Your task to perform on an android device: Set an alarm for 4pm Image 0: 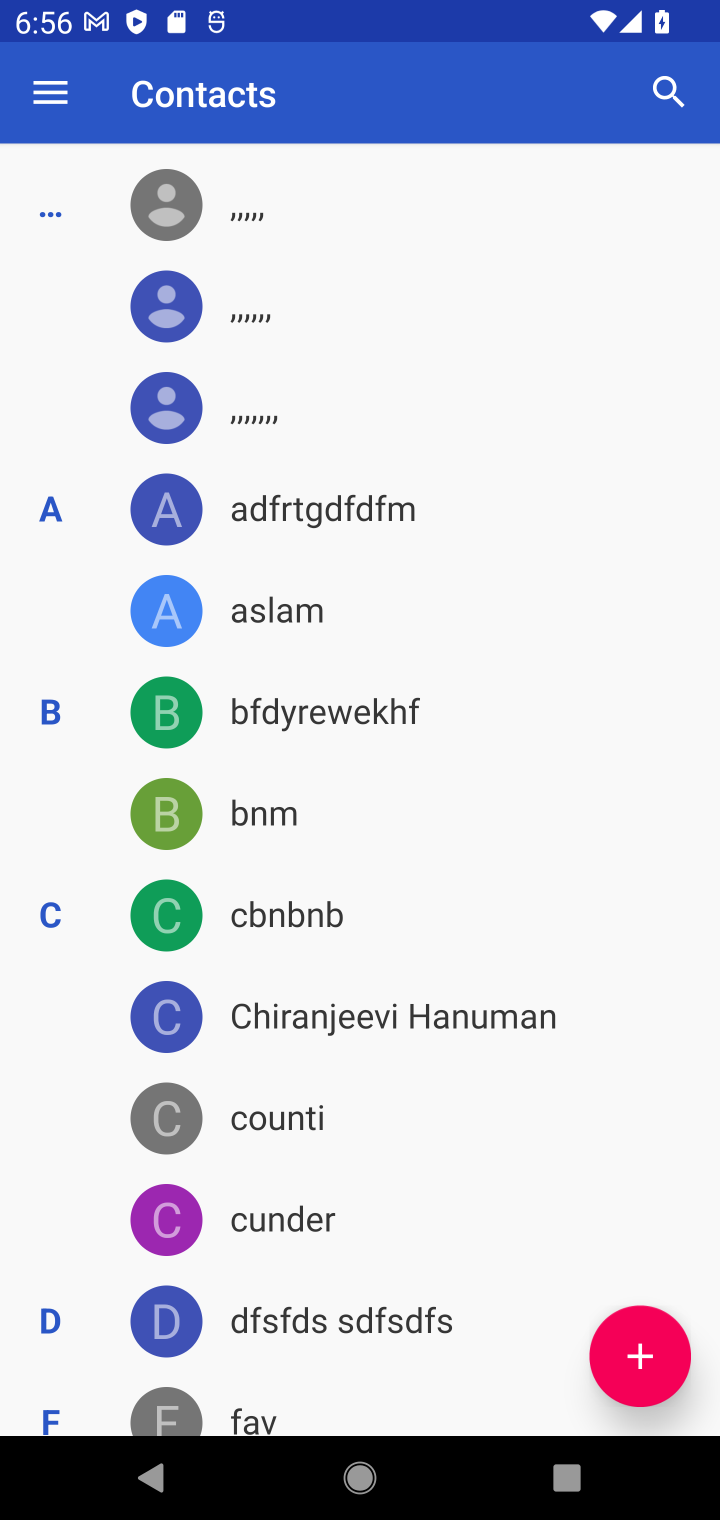
Step 0: press home button
Your task to perform on an android device: Set an alarm for 4pm Image 1: 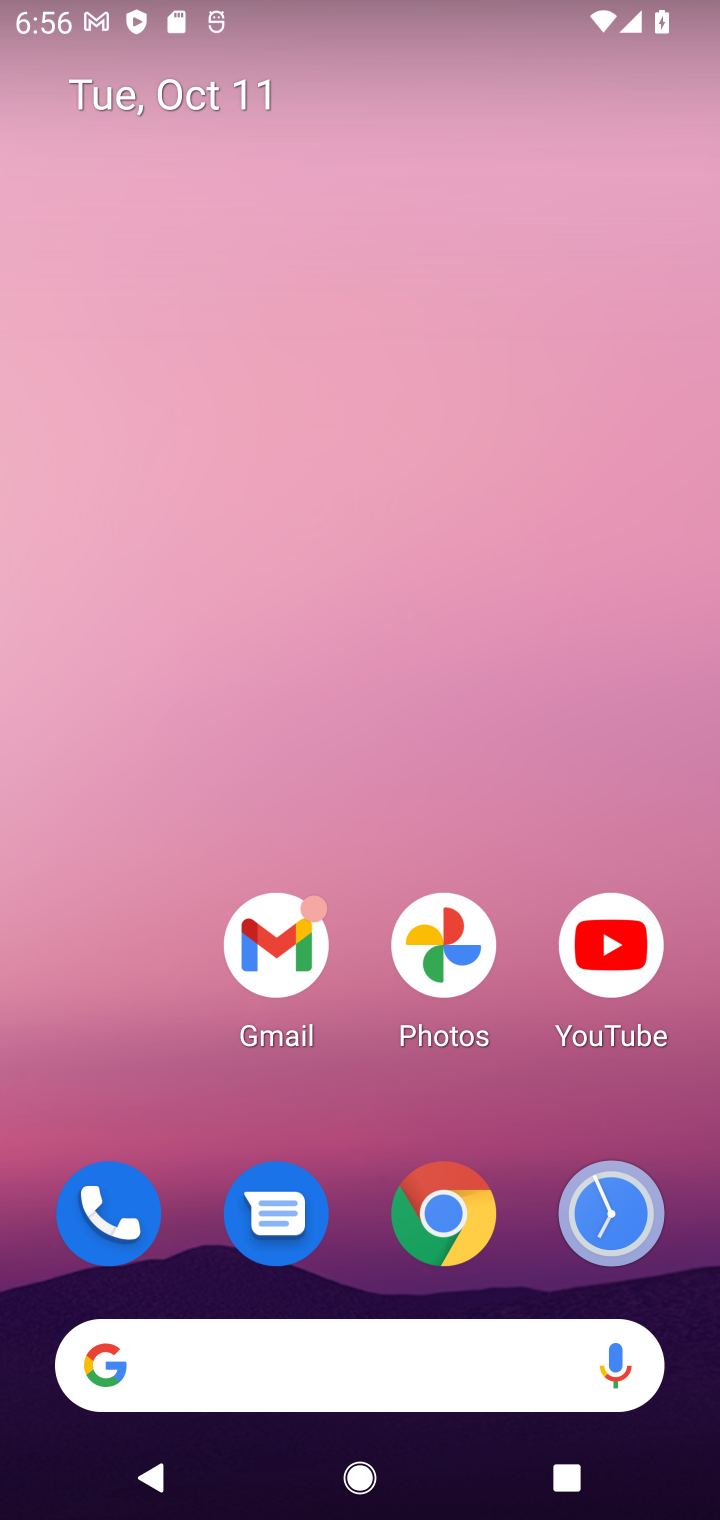
Step 1: drag from (313, 1312) to (264, 487)
Your task to perform on an android device: Set an alarm for 4pm Image 2: 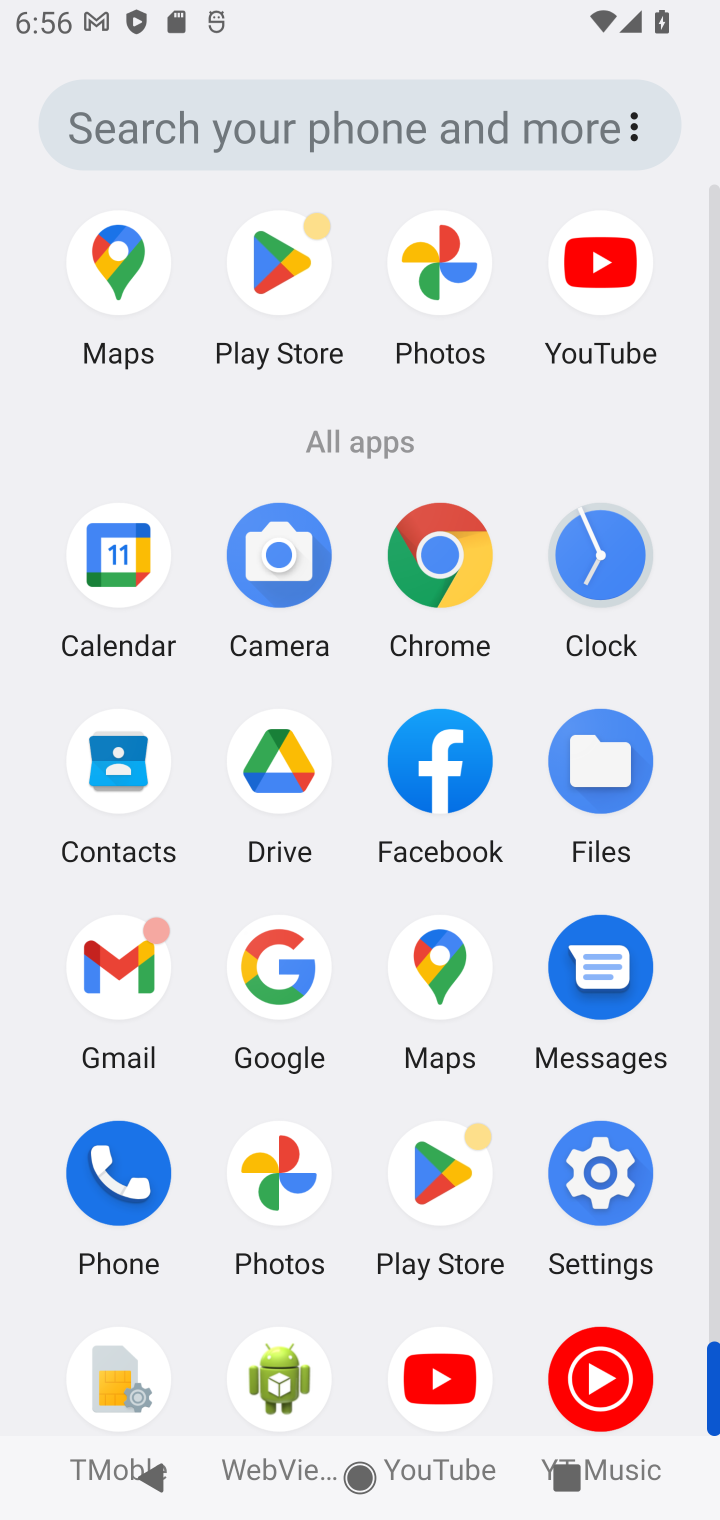
Step 2: drag from (158, 1275) to (170, 534)
Your task to perform on an android device: Set an alarm for 4pm Image 3: 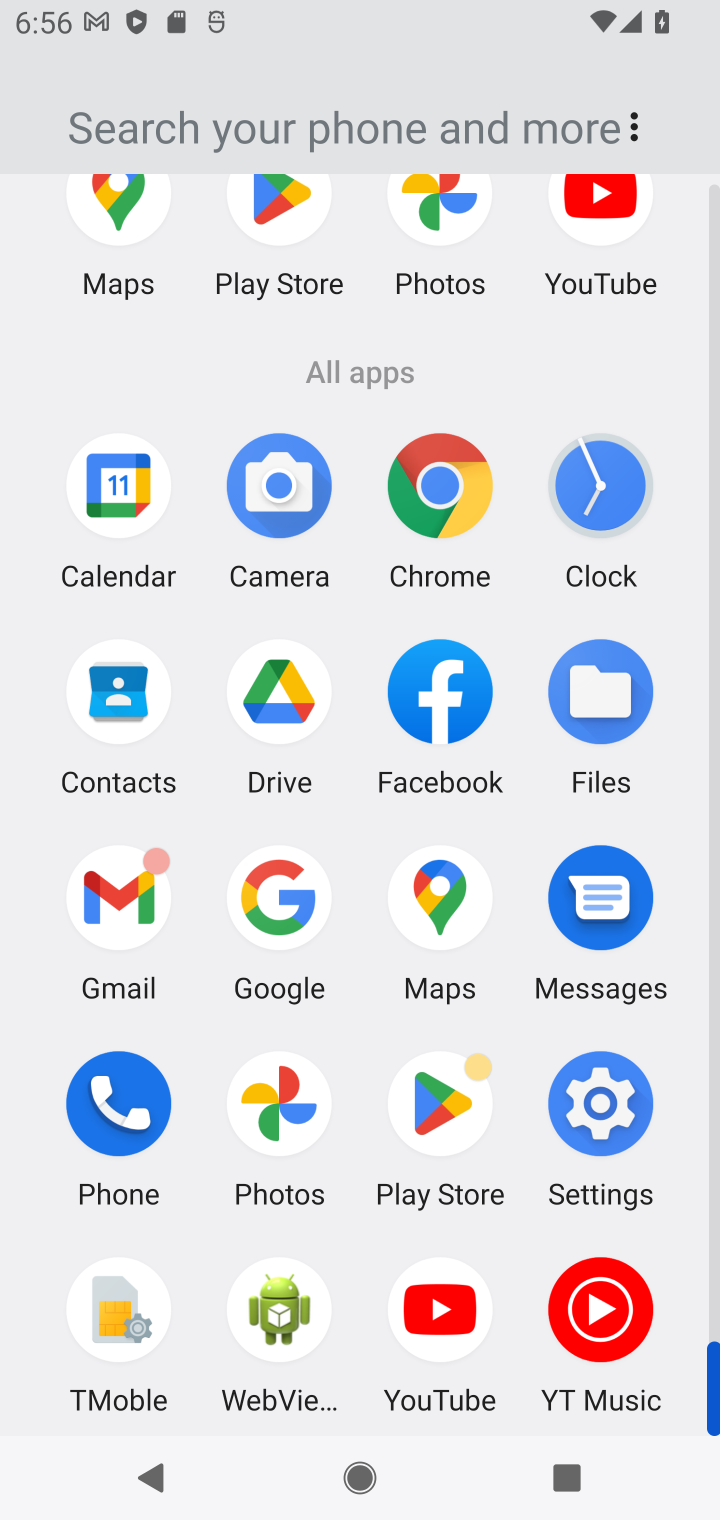
Step 3: drag from (281, 1228) to (264, 439)
Your task to perform on an android device: Set an alarm for 4pm Image 4: 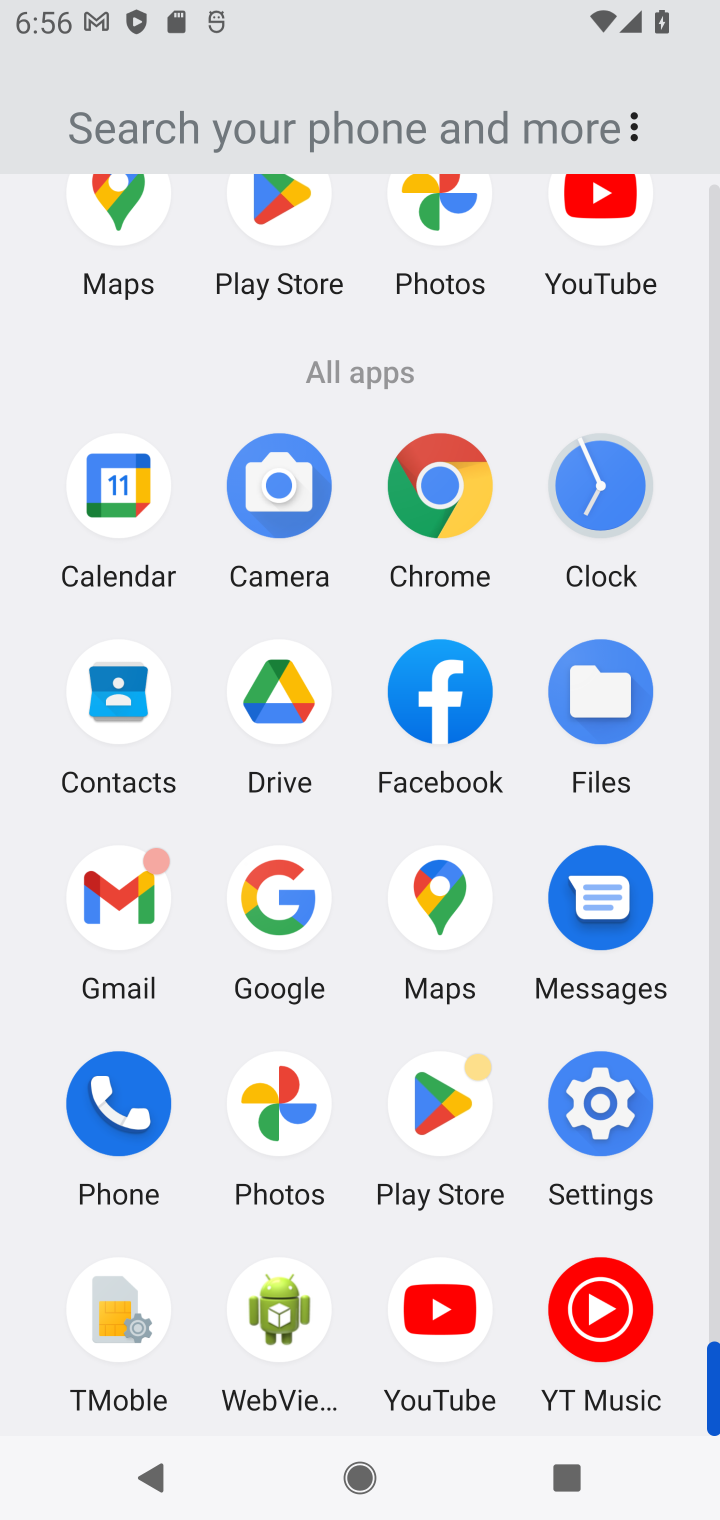
Step 4: click (598, 484)
Your task to perform on an android device: Set an alarm for 4pm Image 5: 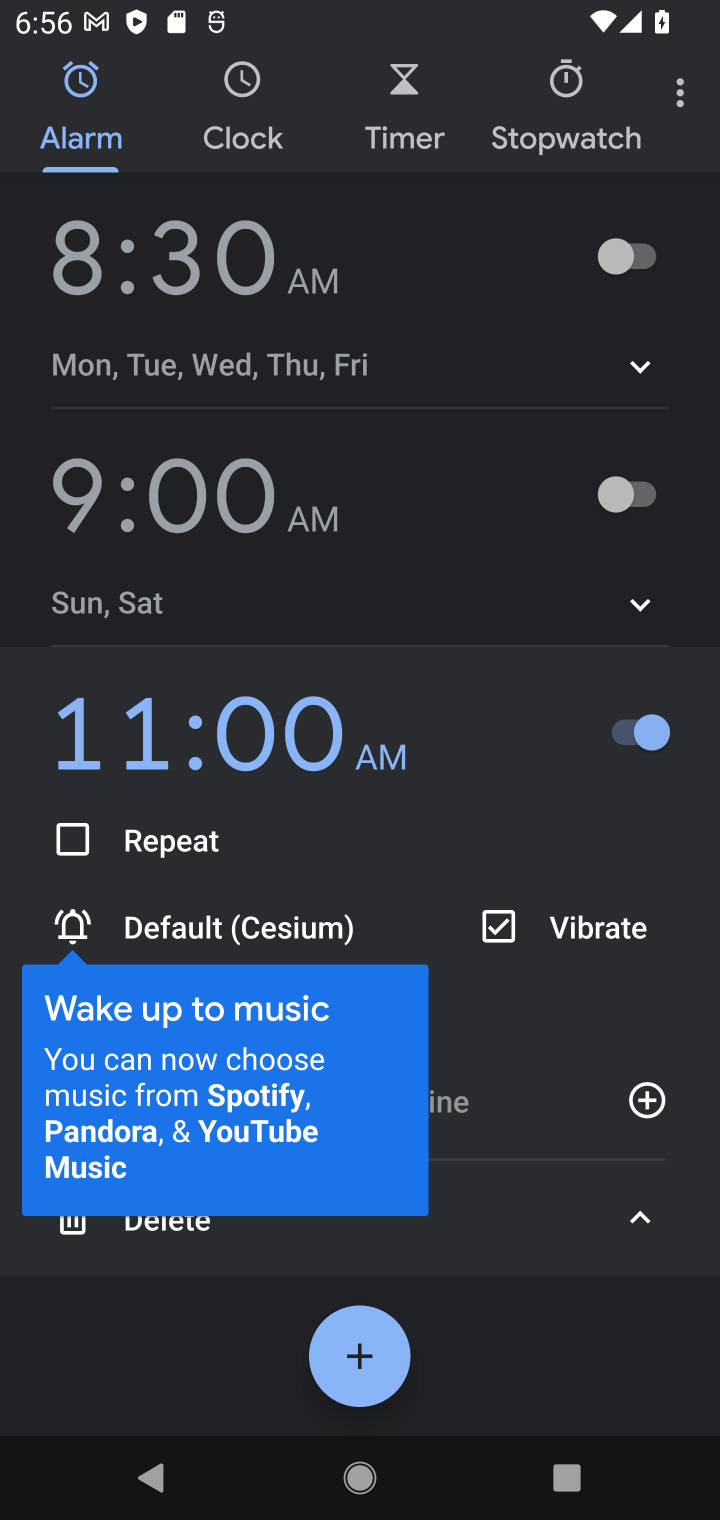
Step 5: click (335, 1345)
Your task to perform on an android device: Set an alarm for 4pm Image 6: 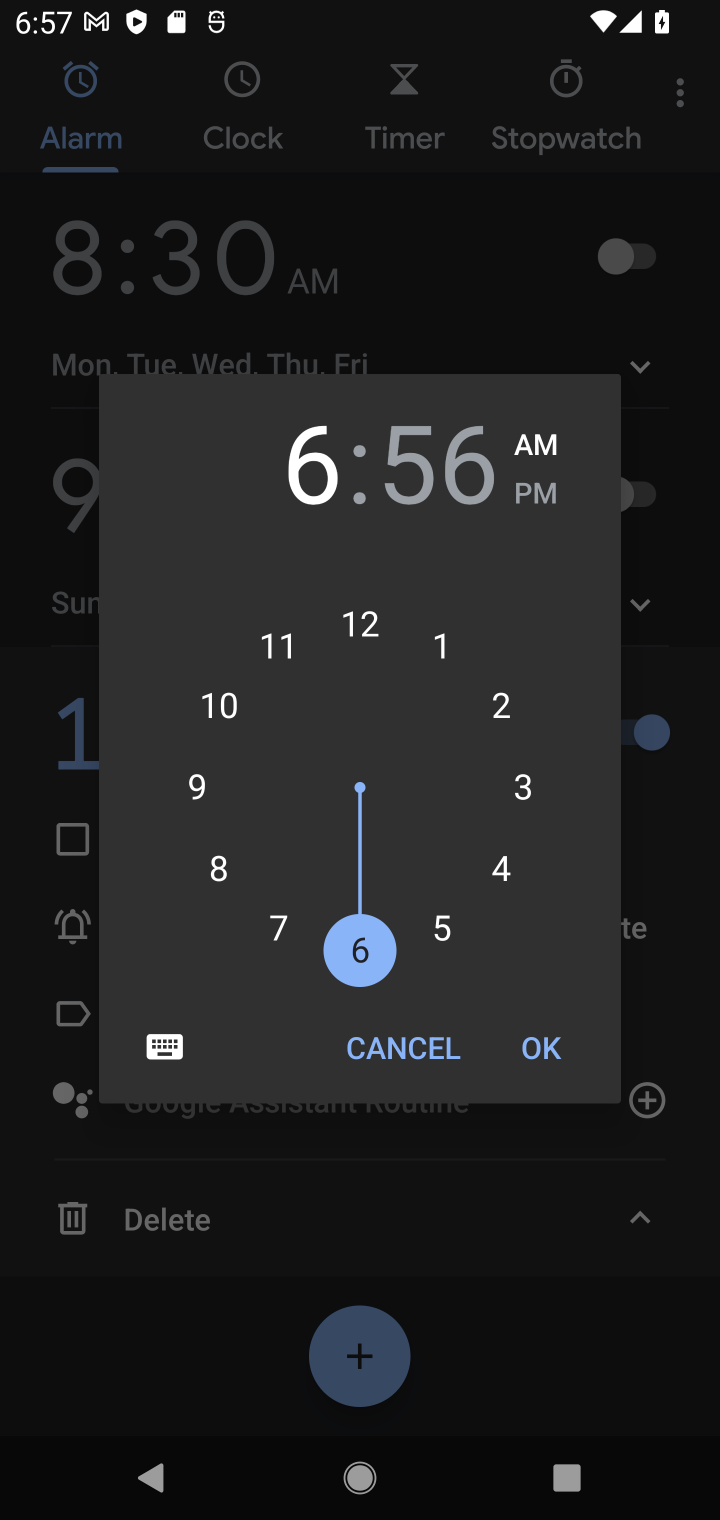
Step 6: click (516, 874)
Your task to perform on an android device: Set an alarm for 4pm Image 7: 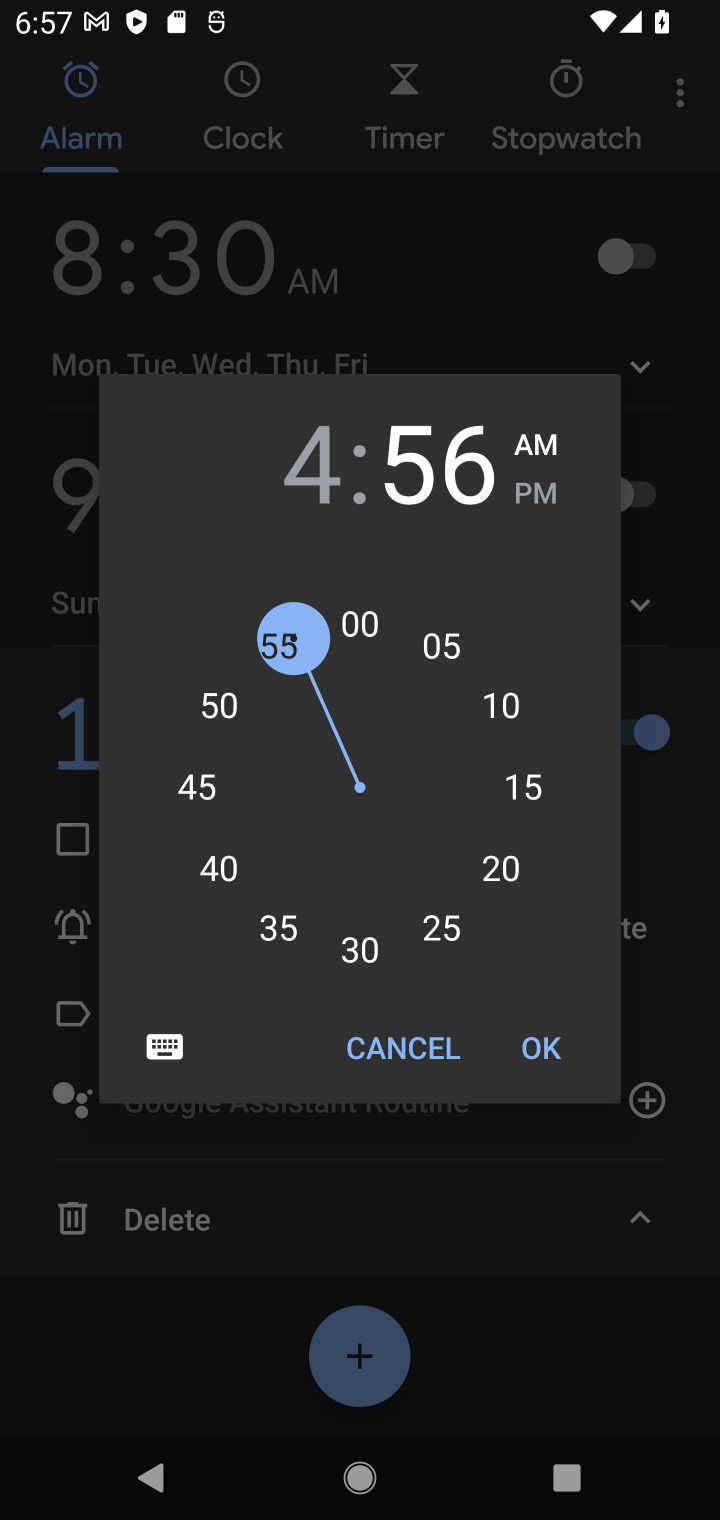
Step 7: click (519, 502)
Your task to perform on an android device: Set an alarm for 4pm Image 8: 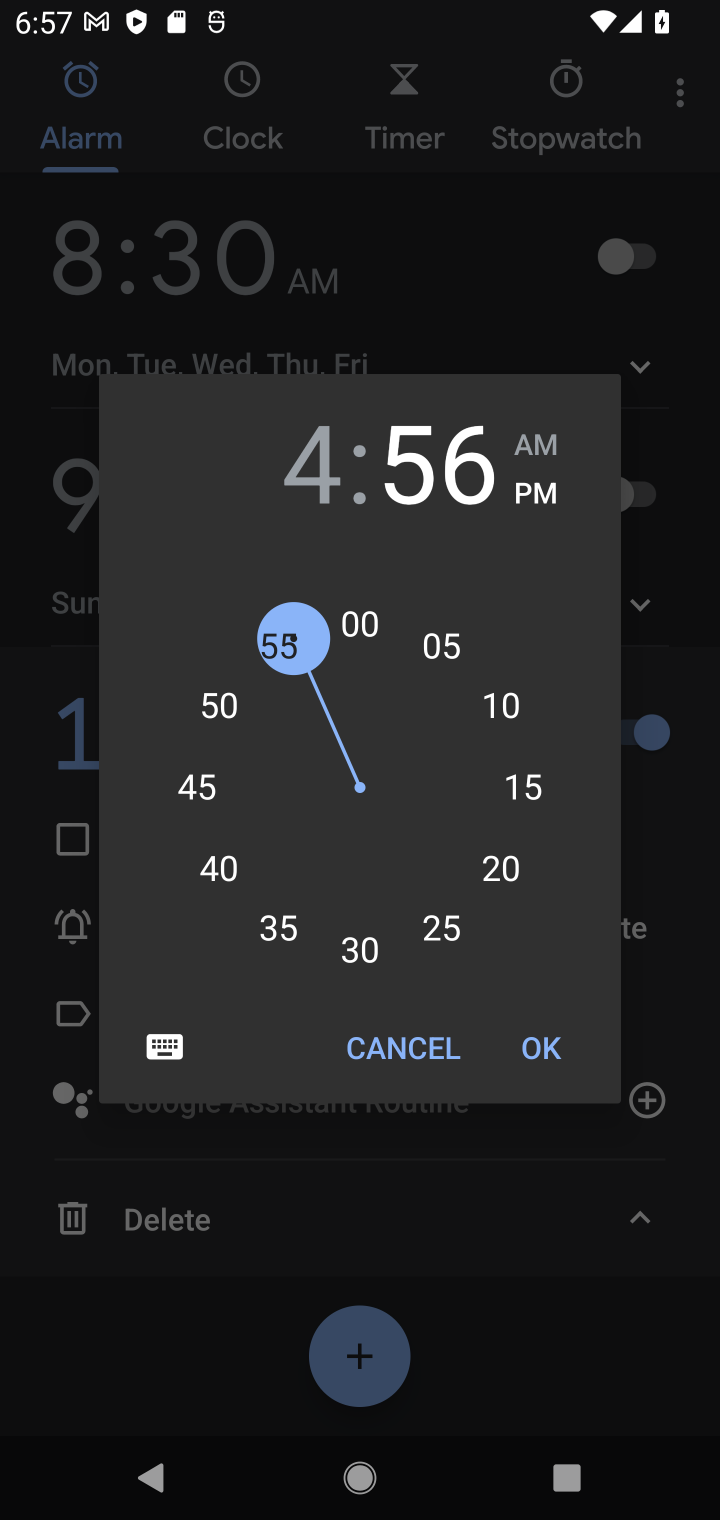
Step 8: click (549, 1061)
Your task to perform on an android device: Set an alarm for 4pm Image 9: 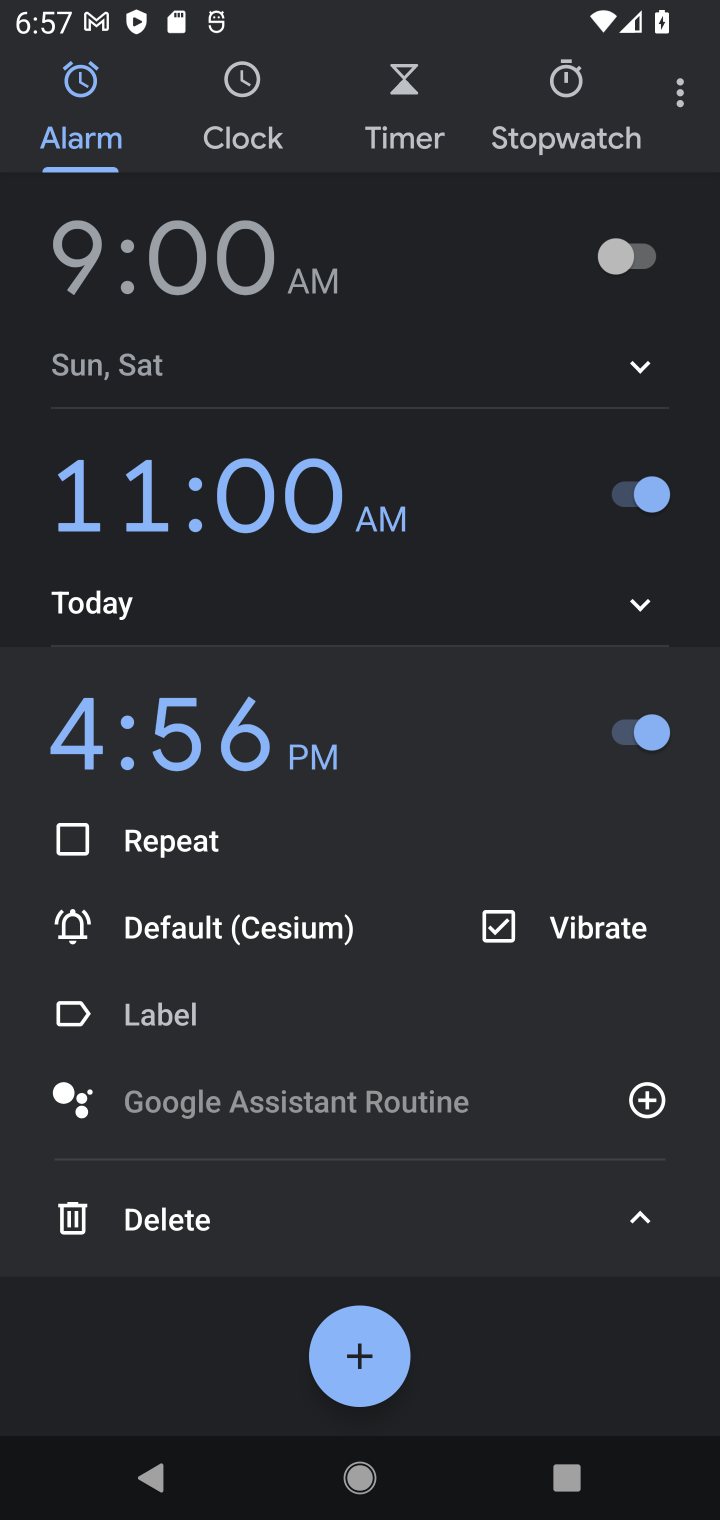
Step 9: click (271, 491)
Your task to perform on an android device: Set an alarm for 4pm Image 10: 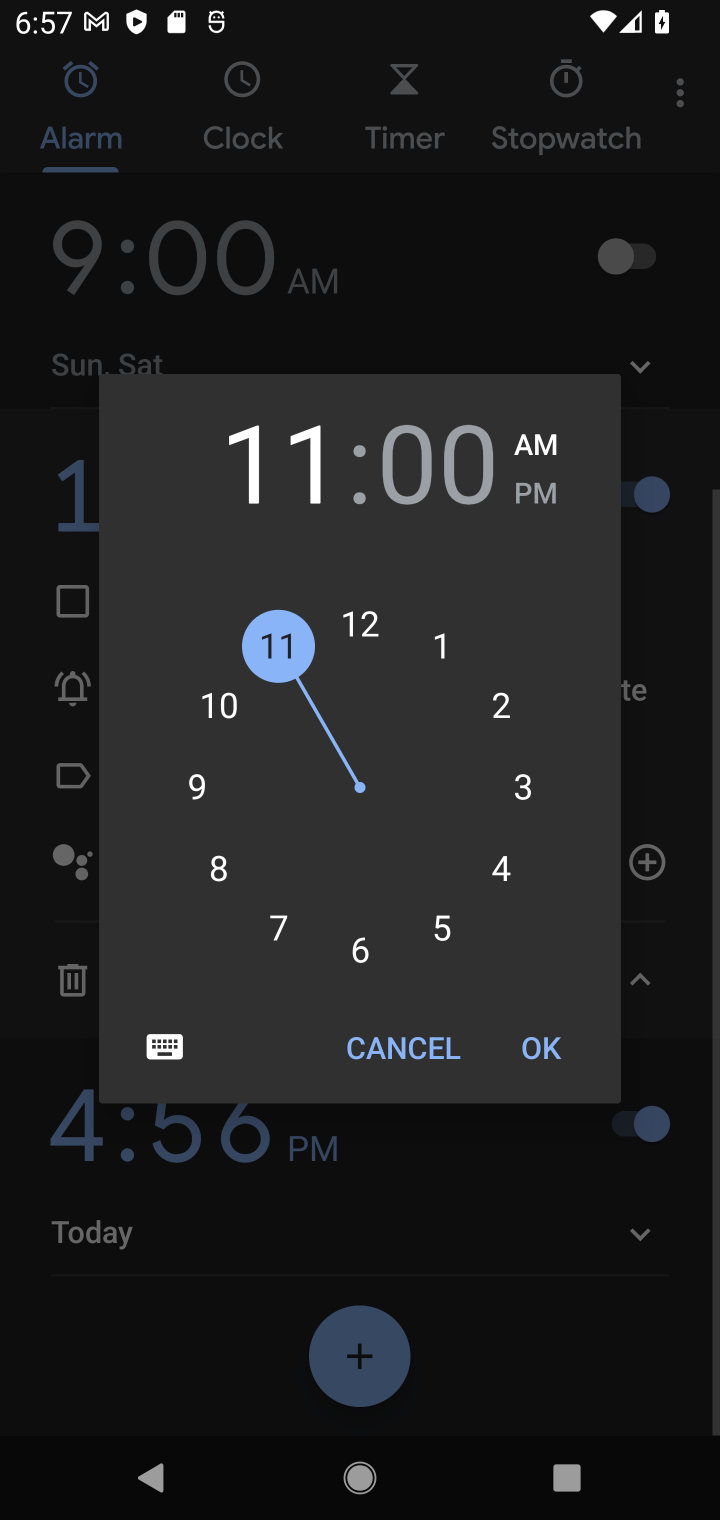
Step 10: click (561, 1042)
Your task to perform on an android device: Set an alarm for 4pm Image 11: 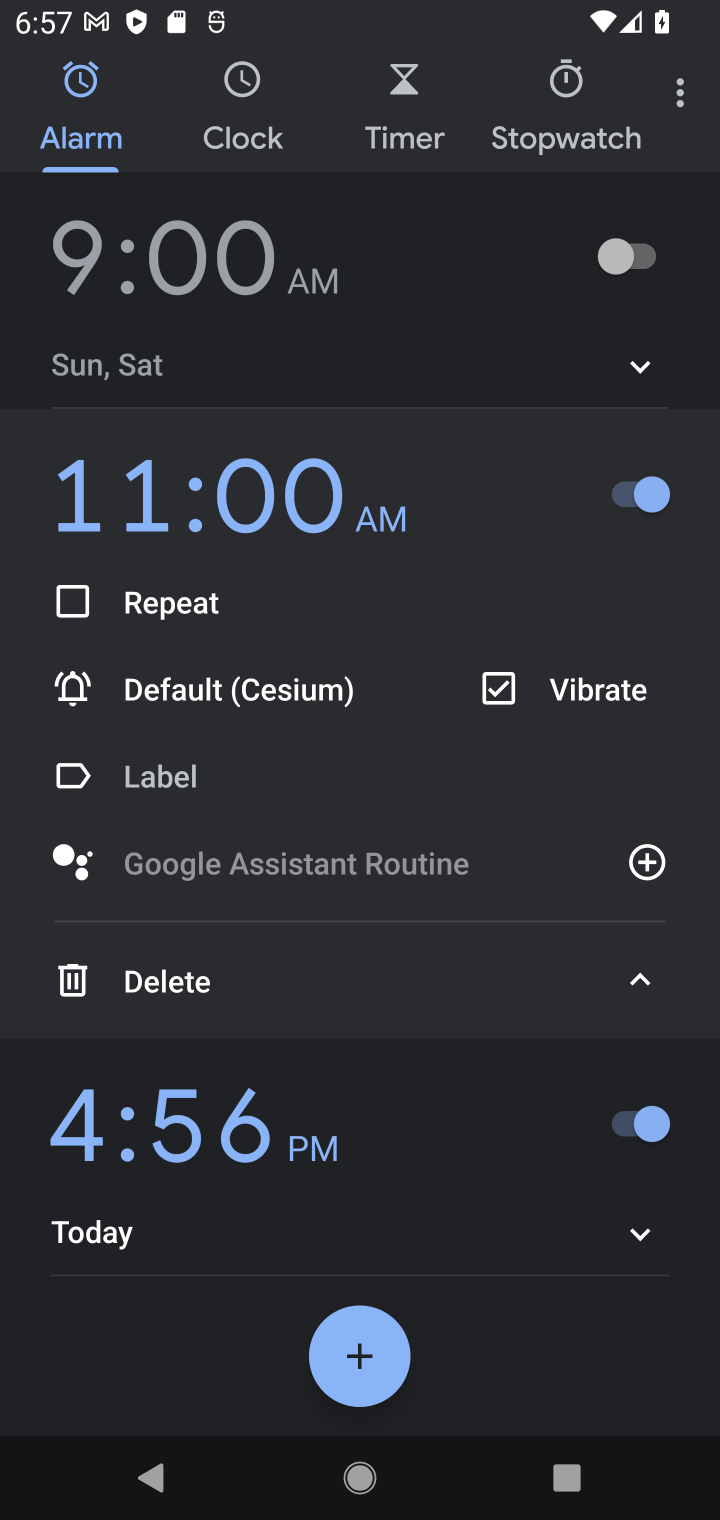
Step 11: click (647, 969)
Your task to perform on an android device: Set an alarm for 4pm Image 12: 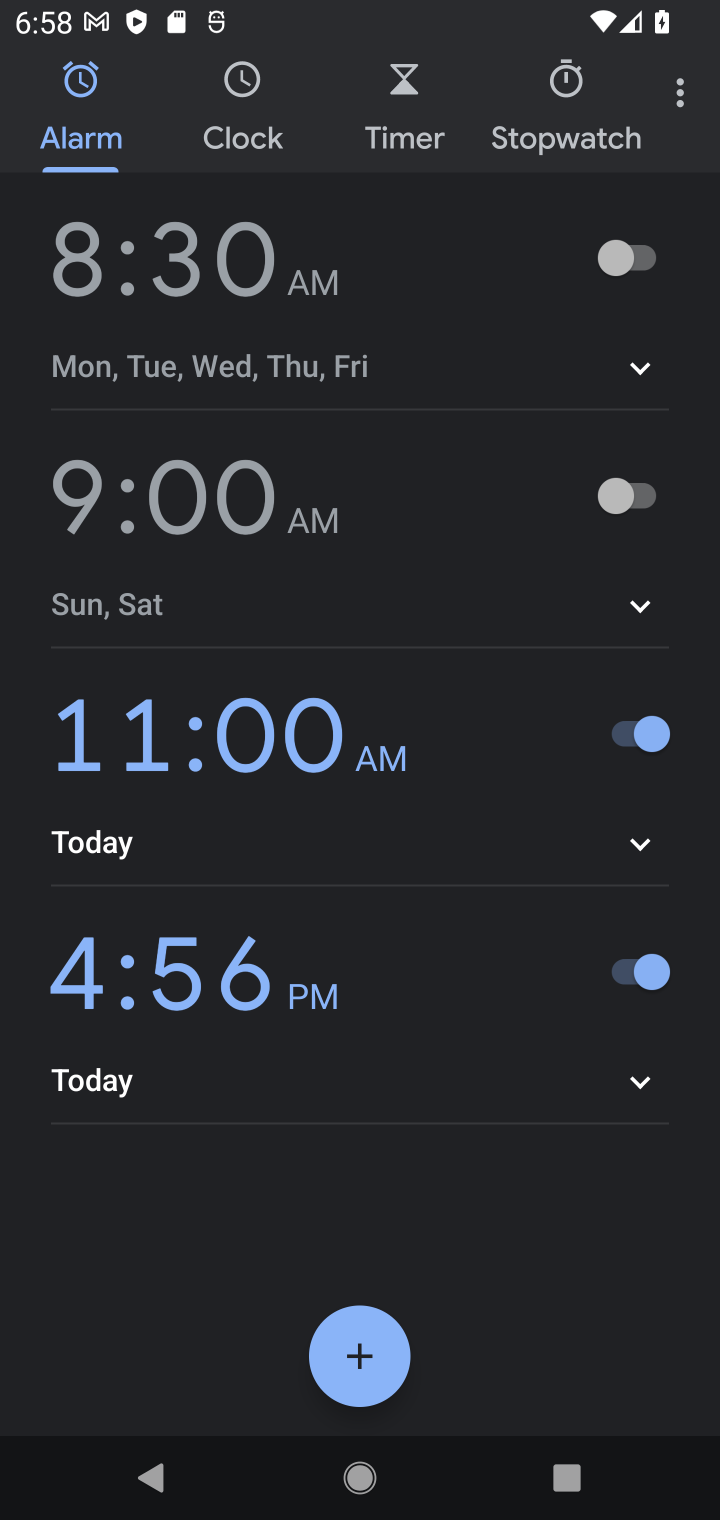
Step 12: task complete